Your task to perform on an android device: change your default location settings in chrome Image 0: 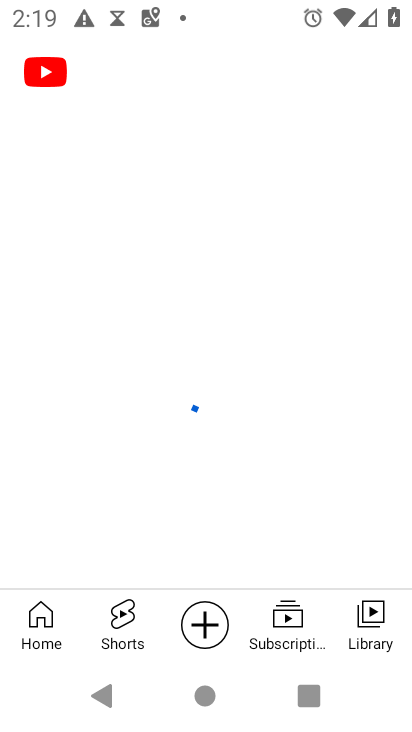
Step 0: drag from (172, 582) to (244, 15)
Your task to perform on an android device: change your default location settings in chrome Image 1: 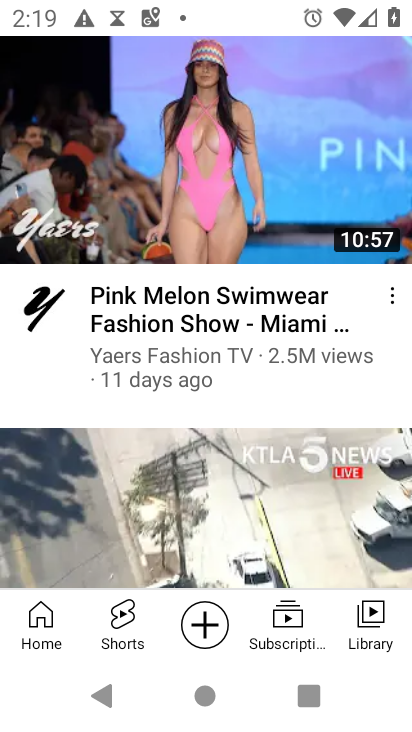
Step 1: press back button
Your task to perform on an android device: change your default location settings in chrome Image 2: 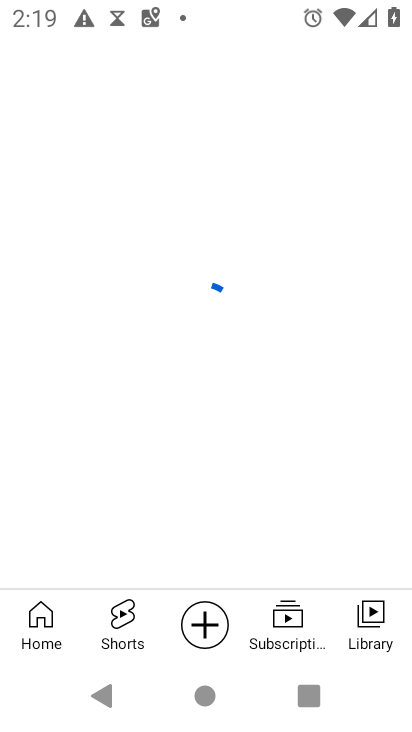
Step 2: press back button
Your task to perform on an android device: change your default location settings in chrome Image 3: 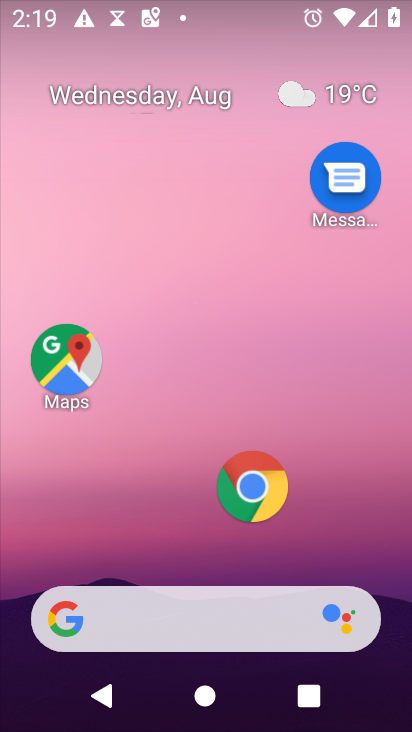
Step 3: click (261, 489)
Your task to perform on an android device: change your default location settings in chrome Image 4: 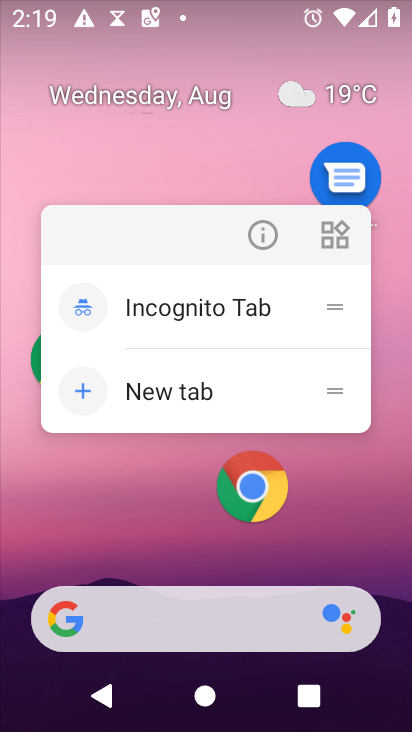
Step 4: click (260, 494)
Your task to perform on an android device: change your default location settings in chrome Image 5: 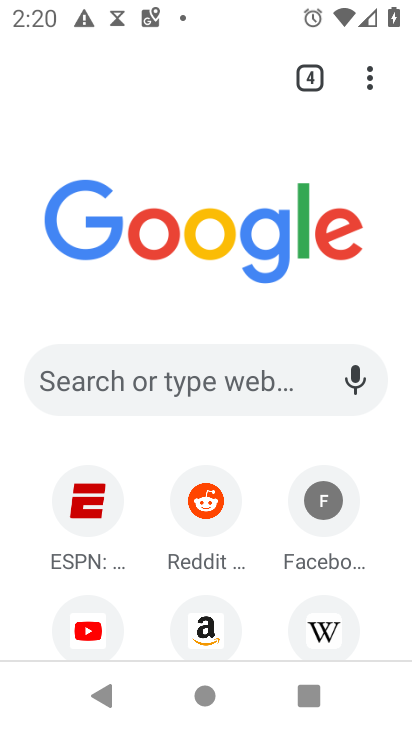
Step 5: drag from (373, 72) to (105, 535)
Your task to perform on an android device: change your default location settings in chrome Image 6: 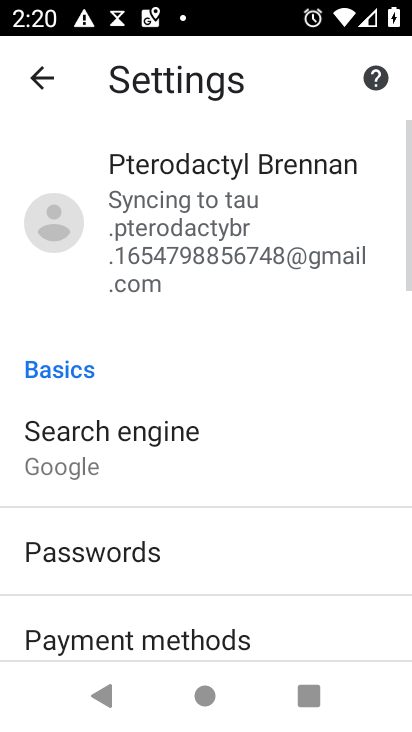
Step 6: drag from (143, 593) to (239, 4)
Your task to perform on an android device: change your default location settings in chrome Image 7: 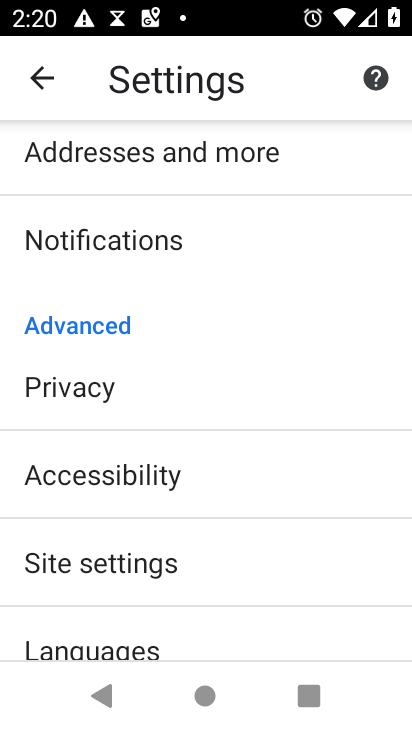
Step 7: click (123, 552)
Your task to perform on an android device: change your default location settings in chrome Image 8: 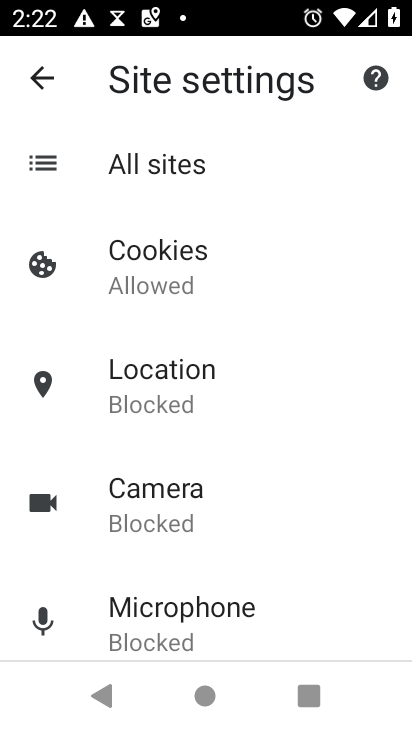
Step 8: click (202, 361)
Your task to perform on an android device: change your default location settings in chrome Image 9: 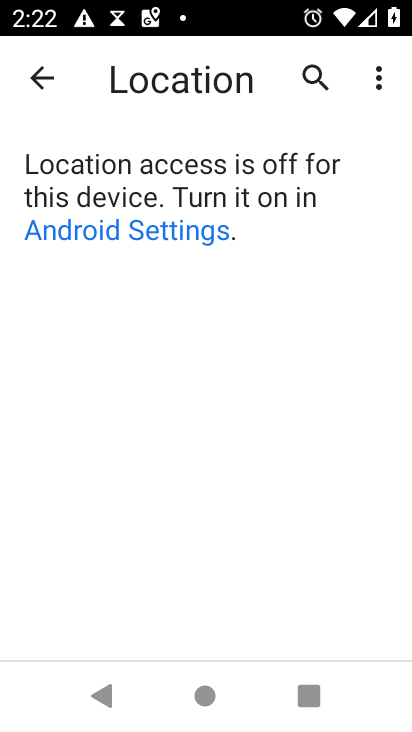
Step 9: task complete